Your task to perform on an android device: turn on improve location accuracy Image 0: 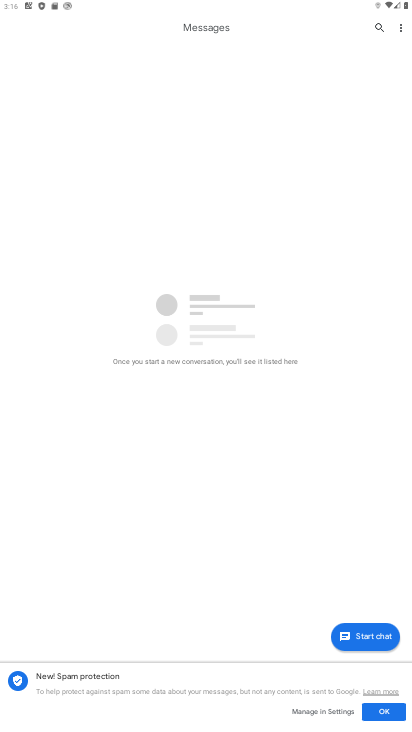
Step 0: press home button
Your task to perform on an android device: turn on improve location accuracy Image 1: 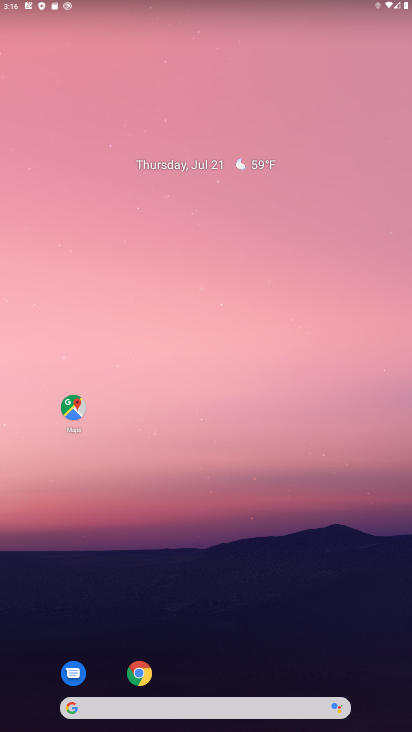
Step 1: drag from (329, 633) to (251, 17)
Your task to perform on an android device: turn on improve location accuracy Image 2: 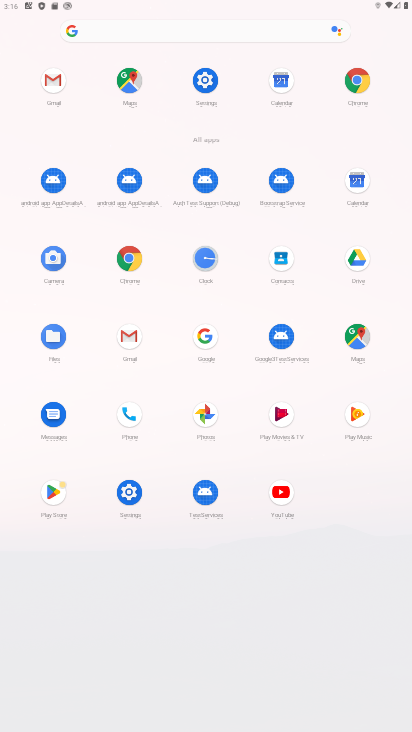
Step 2: click (207, 80)
Your task to perform on an android device: turn on improve location accuracy Image 3: 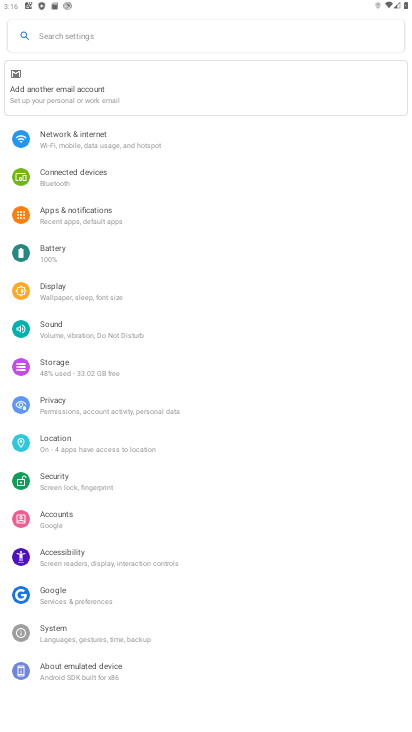
Step 3: click (153, 447)
Your task to perform on an android device: turn on improve location accuracy Image 4: 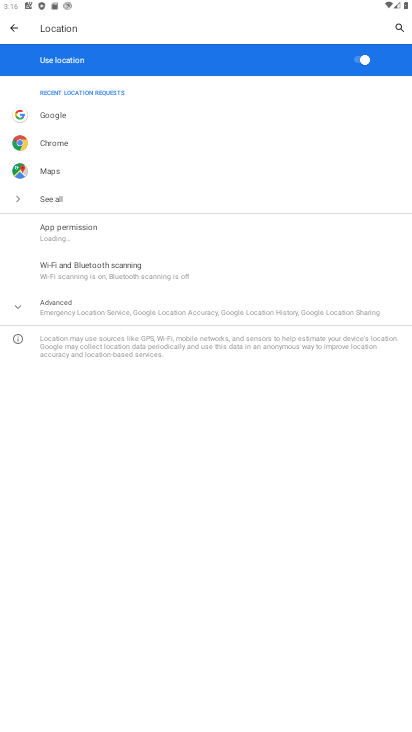
Step 4: click (250, 306)
Your task to perform on an android device: turn on improve location accuracy Image 5: 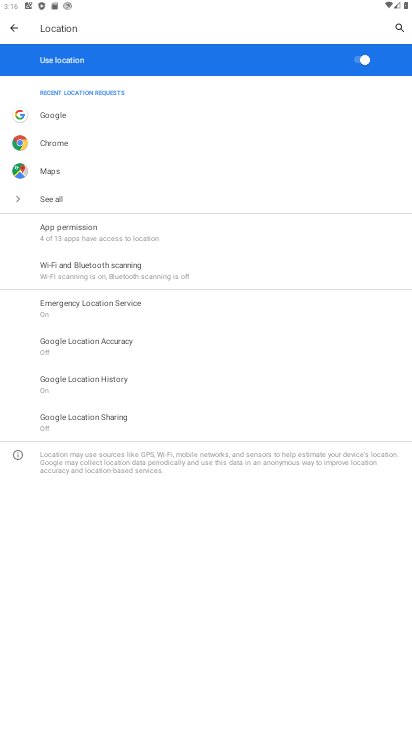
Step 5: click (155, 336)
Your task to perform on an android device: turn on improve location accuracy Image 6: 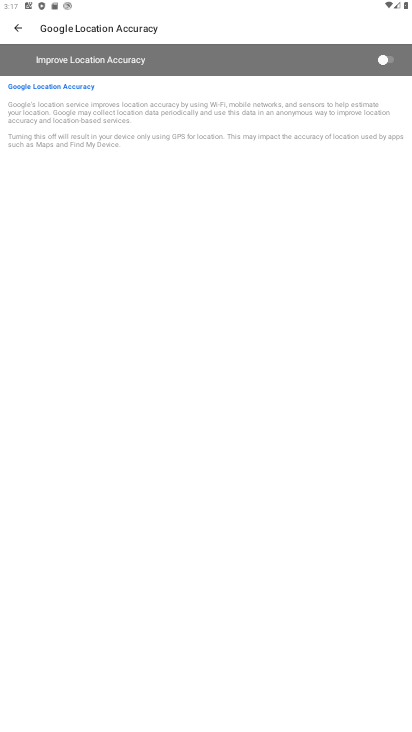
Step 6: click (390, 67)
Your task to perform on an android device: turn on improve location accuracy Image 7: 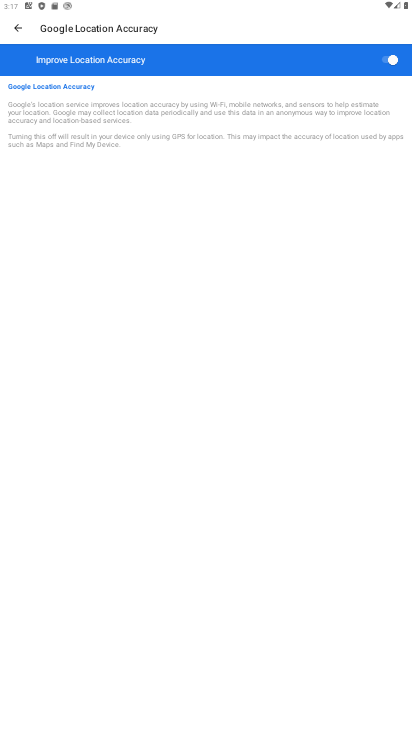
Step 7: task complete